Your task to perform on an android device: add a contact Image 0: 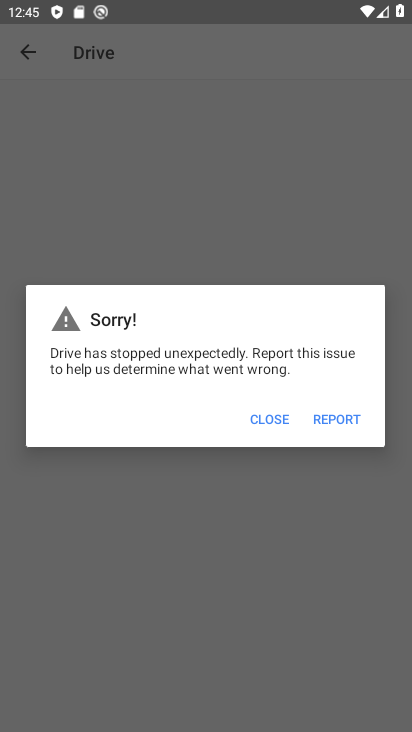
Step 0: press home button
Your task to perform on an android device: add a contact Image 1: 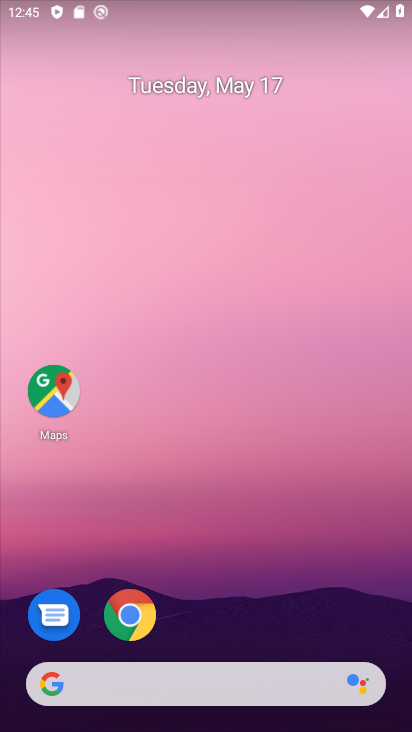
Step 1: drag from (223, 592) to (220, 107)
Your task to perform on an android device: add a contact Image 2: 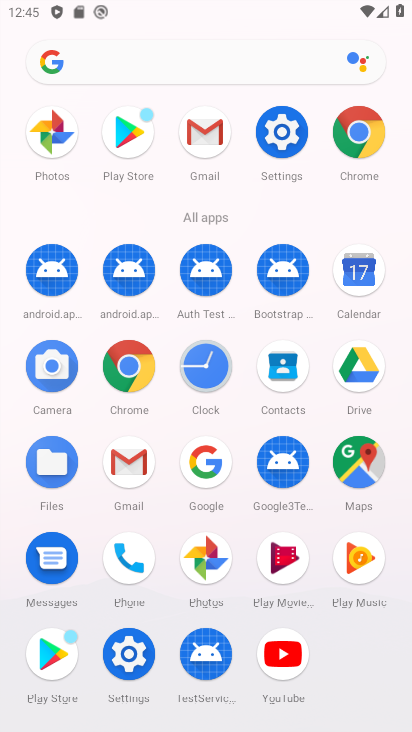
Step 2: click (285, 367)
Your task to perform on an android device: add a contact Image 3: 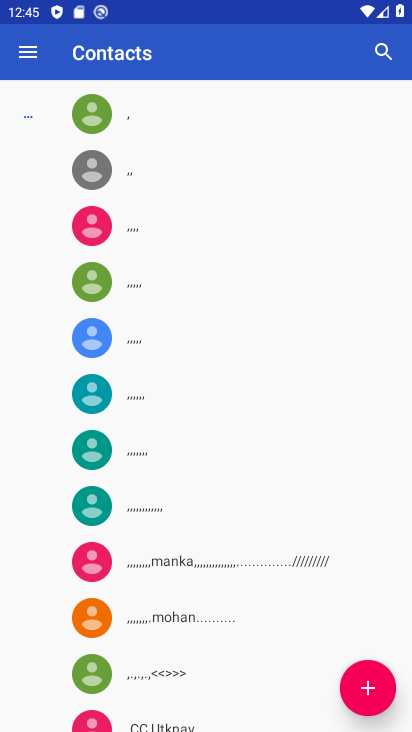
Step 3: click (366, 689)
Your task to perform on an android device: add a contact Image 4: 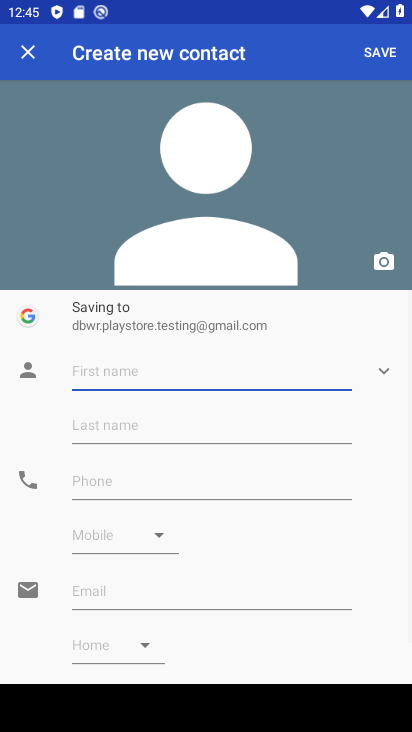
Step 4: click (150, 372)
Your task to perform on an android device: add a contact Image 5: 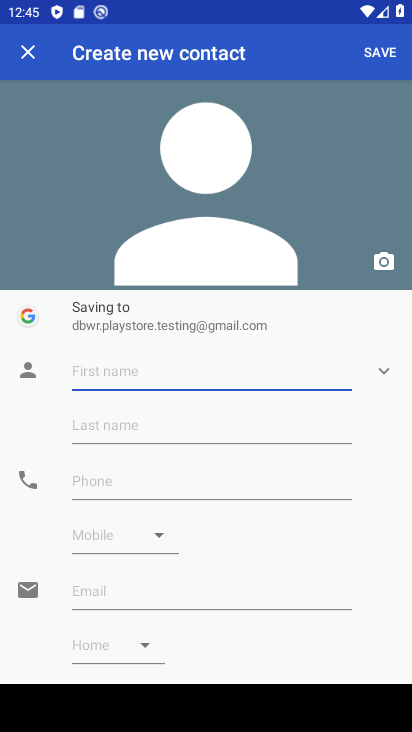
Step 5: type ""
Your task to perform on an android device: add a contact Image 6: 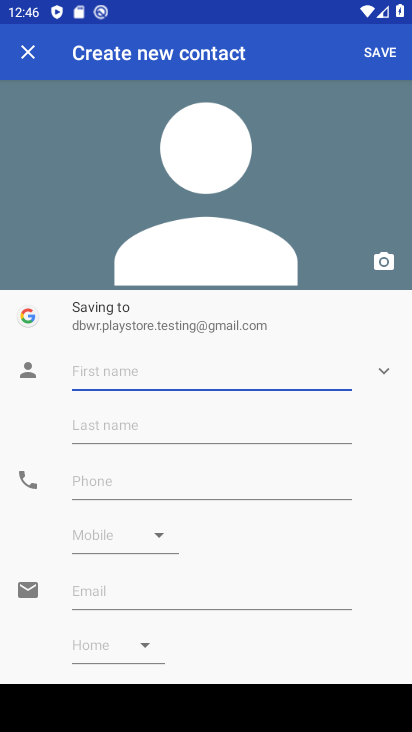
Step 6: type "Balasubhramanyam"
Your task to perform on an android device: add a contact Image 7: 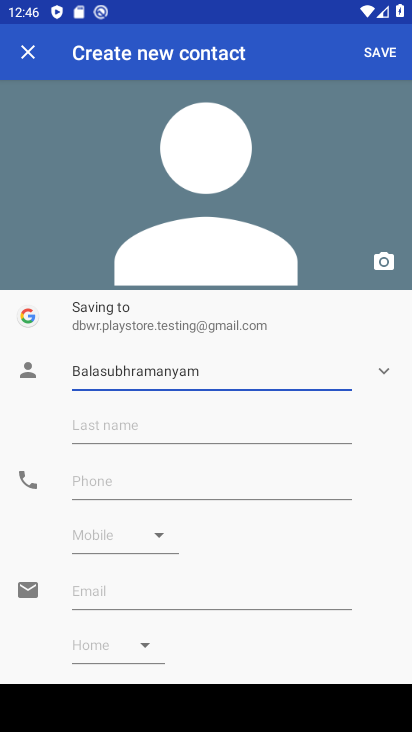
Step 7: click (125, 439)
Your task to perform on an android device: add a contact Image 8: 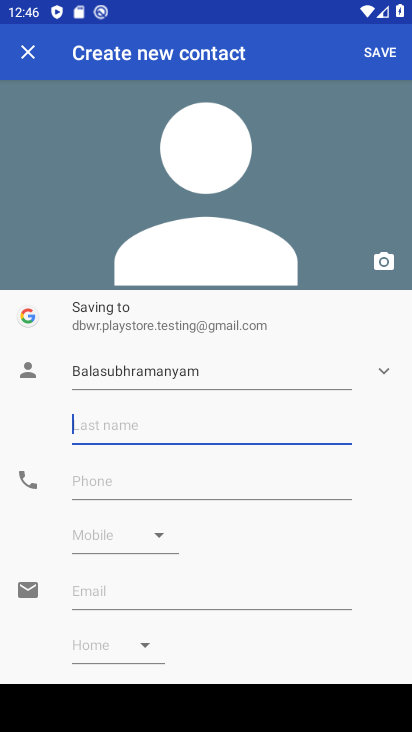
Step 8: type "Swamy"
Your task to perform on an android device: add a contact Image 9: 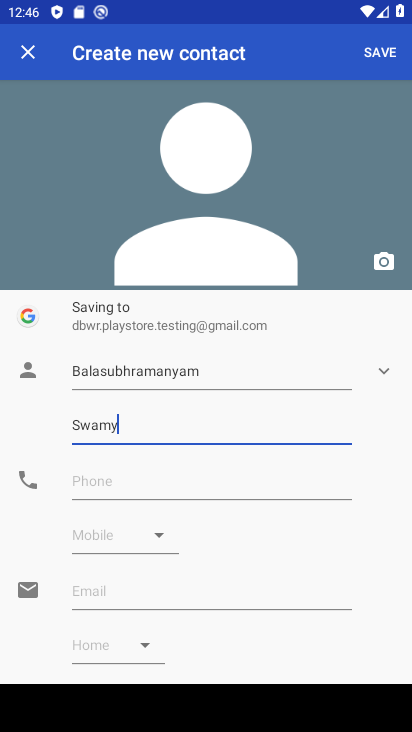
Step 9: click (306, 486)
Your task to perform on an android device: add a contact Image 10: 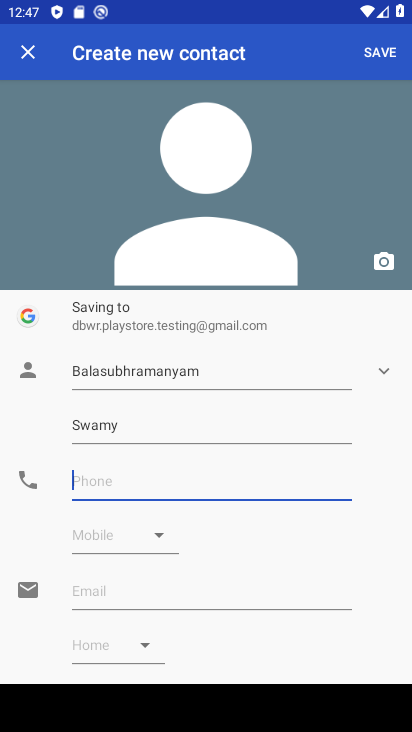
Step 10: type "0987654325"
Your task to perform on an android device: add a contact Image 11: 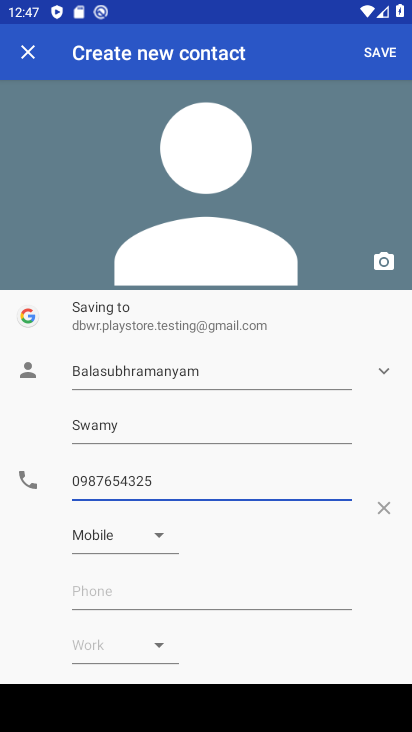
Step 11: click (380, 56)
Your task to perform on an android device: add a contact Image 12: 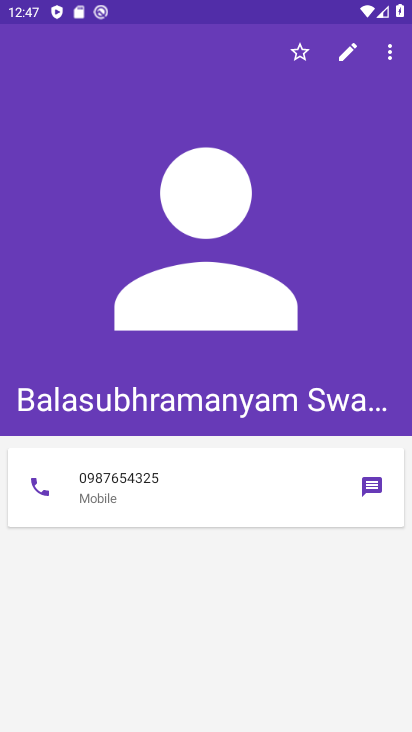
Step 12: task complete